Your task to perform on an android device: Go to Google Image 0: 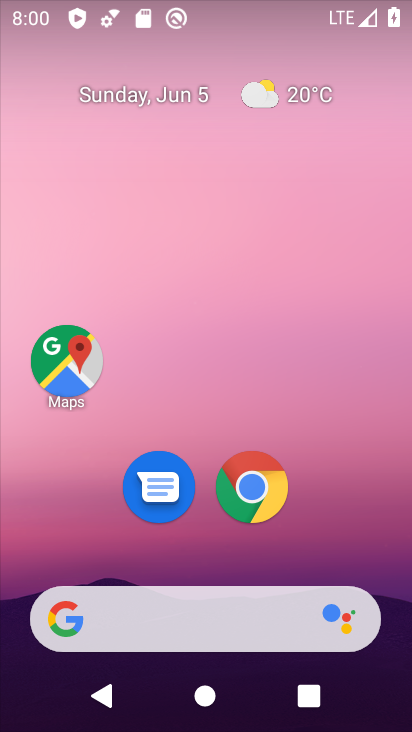
Step 0: drag from (200, 538) to (200, 93)
Your task to perform on an android device: Go to Google Image 1: 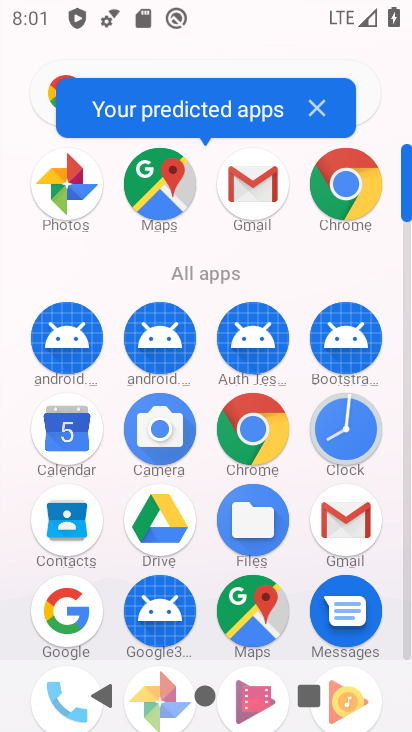
Step 1: click (75, 625)
Your task to perform on an android device: Go to Google Image 2: 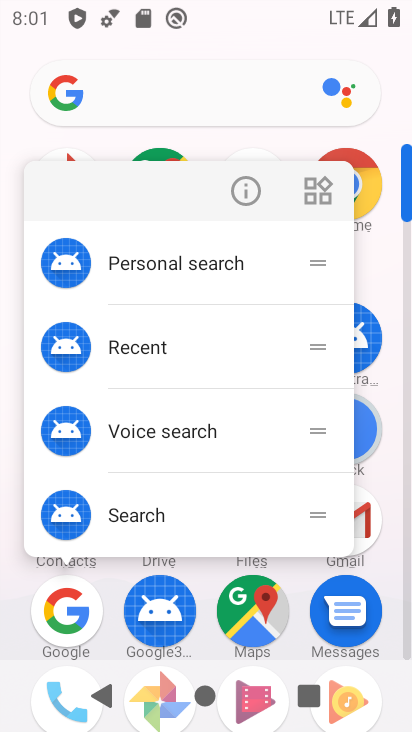
Step 2: click (78, 628)
Your task to perform on an android device: Go to Google Image 3: 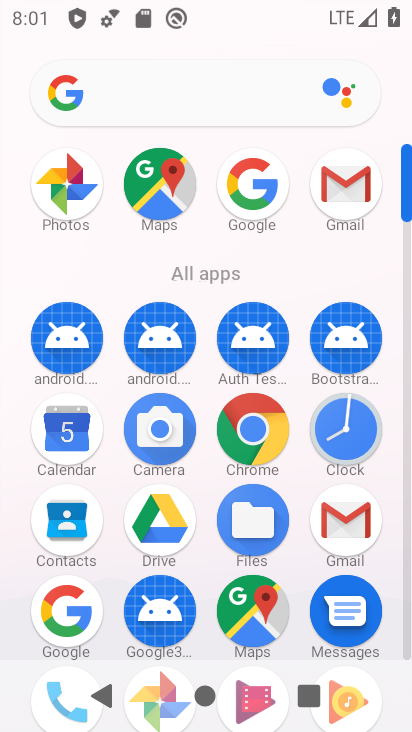
Step 3: click (58, 626)
Your task to perform on an android device: Go to Google Image 4: 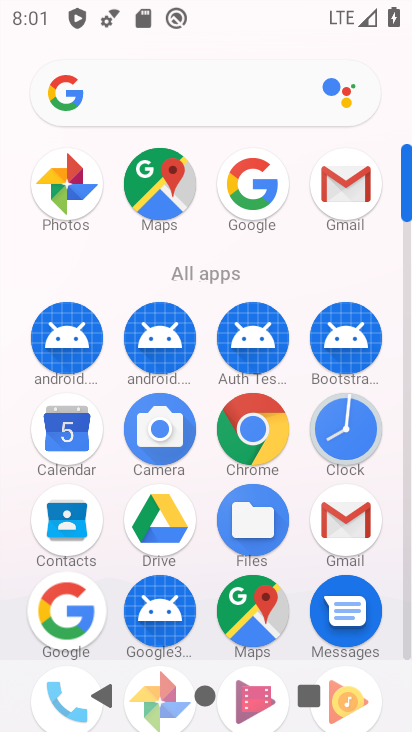
Step 4: click (58, 626)
Your task to perform on an android device: Go to Google Image 5: 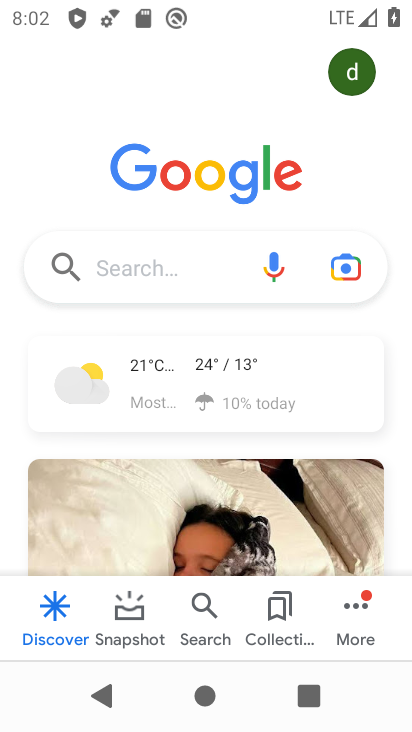
Step 5: task complete